Your task to perform on an android device: open sync settings in chrome Image 0: 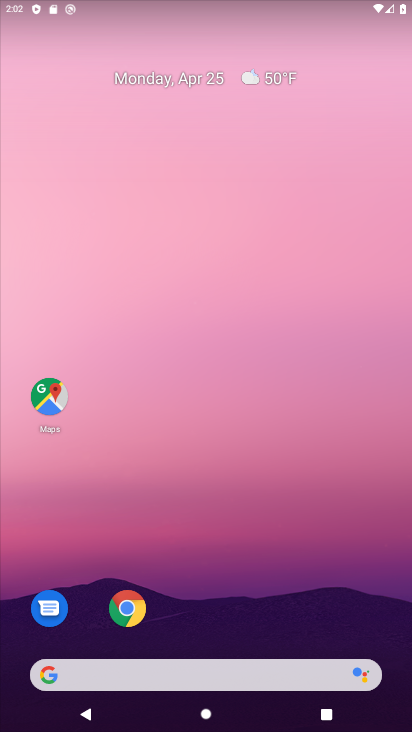
Step 0: click (135, 602)
Your task to perform on an android device: open sync settings in chrome Image 1: 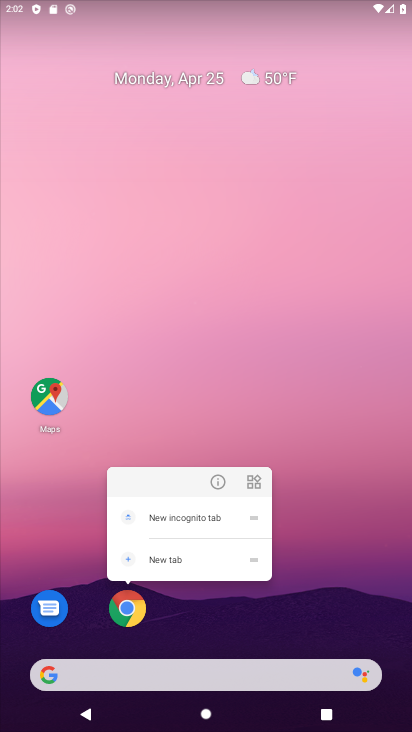
Step 1: click (138, 608)
Your task to perform on an android device: open sync settings in chrome Image 2: 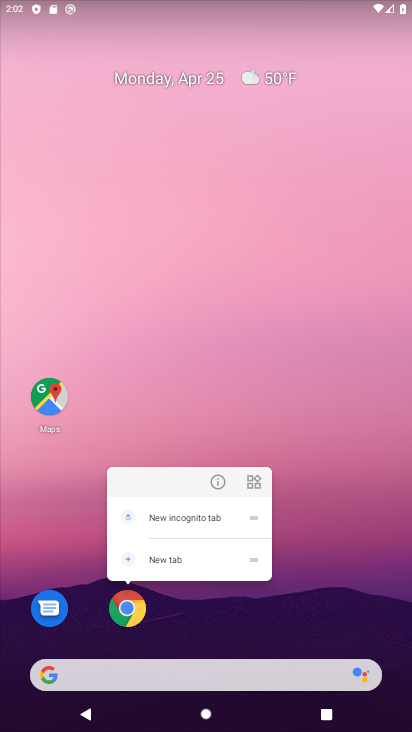
Step 2: click (138, 608)
Your task to perform on an android device: open sync settings in chrome Image 3: 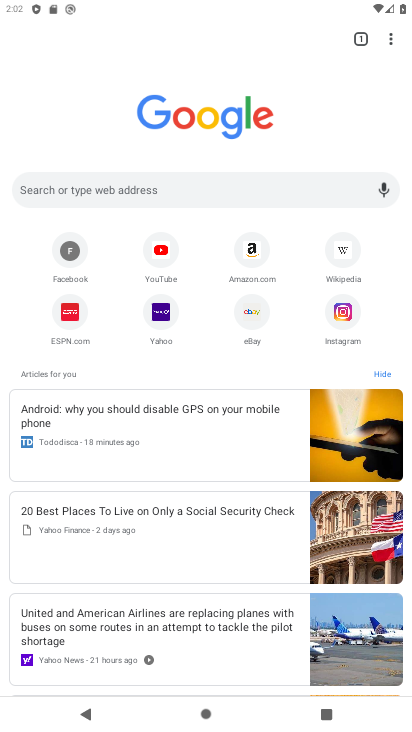
Step 3: click (388, 40)
Your task to perform on an android device: open sync settings in chrome Image 4: 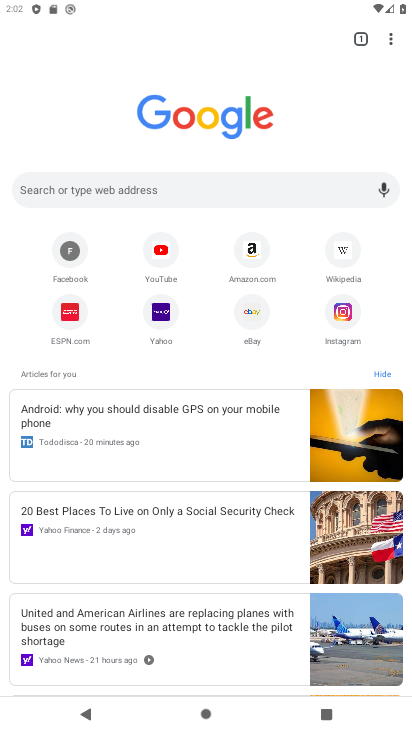
Step 4: click (388, 40)
Your task to perform on an android device: open sync settings in chrome Image 5: 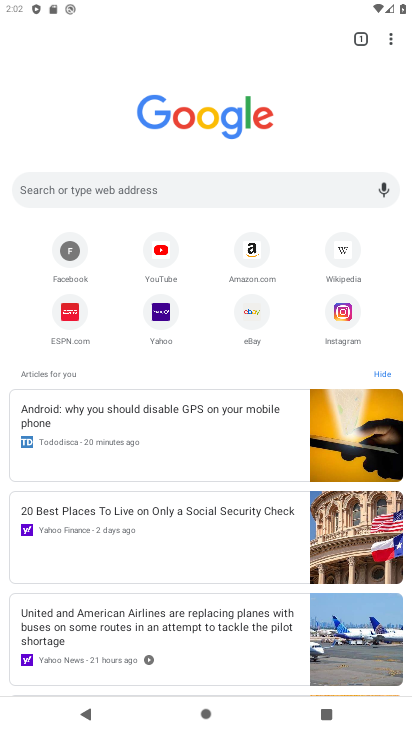
Step 5: click (388, 40)
Your task to perform on an android device: open sync settings in chrome Image 6: 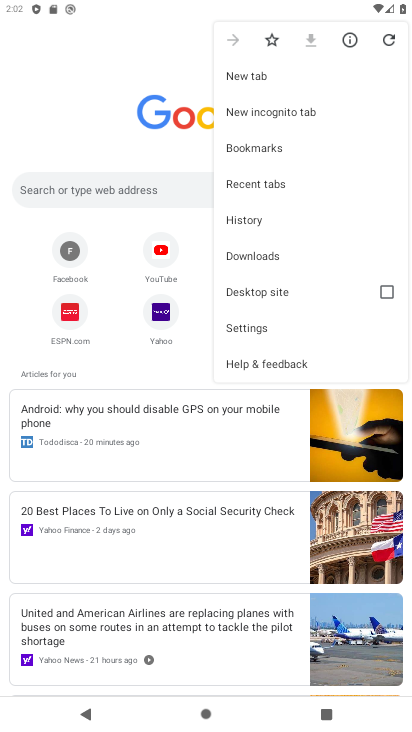
Step 6: click (250, 323)
Your task to perform on an android device: open sync settings in chrome Image 7: 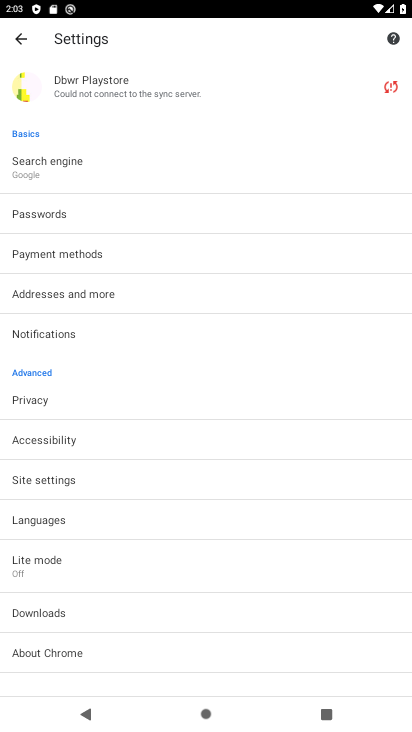
Step 7: click (129, 90)
Your task to perform on an android device: open sync settings in chrome Image 8: 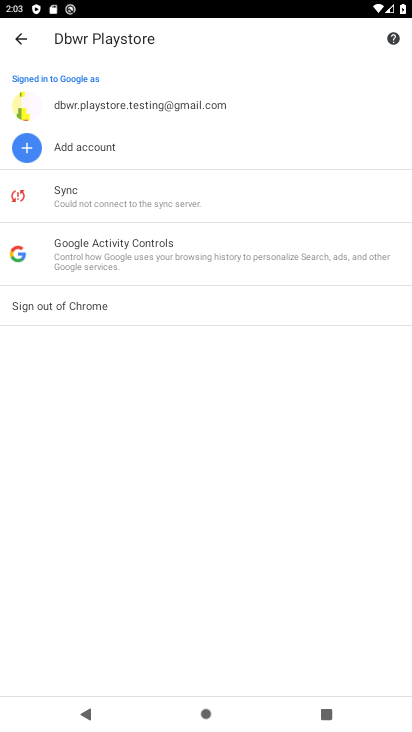
Step 8: click (112, 195)
Your task to perform on an android device: open sync settings in chrome Image 9: 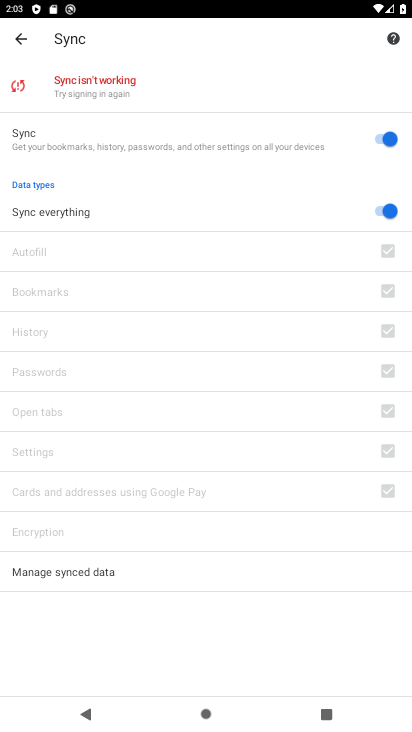
Step 9: task complete